Your task to perform on an android device: search for console tables on article.com Image 0: 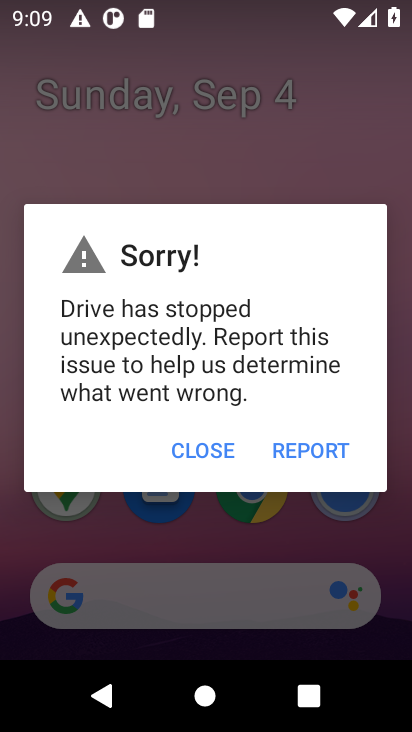
Step 0: click (210, 451)
Your task to perform on an android device: search for console tables on article.com Image 1: 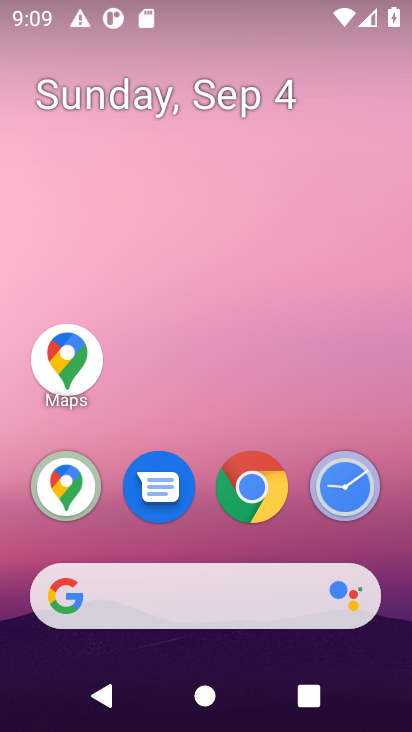
Step 1: click (252, 484)
Your task to perform on an android device: search for console tables on article.com Image 2: 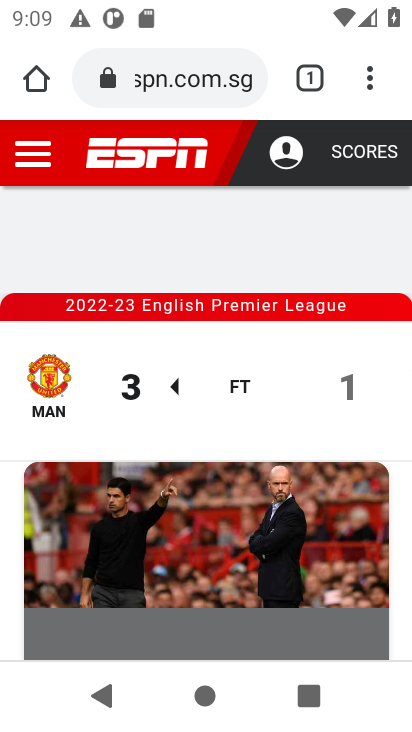
Step 2: click (42, 98)
Your task to perform on an android device: search for console tables on article.com Image 3: 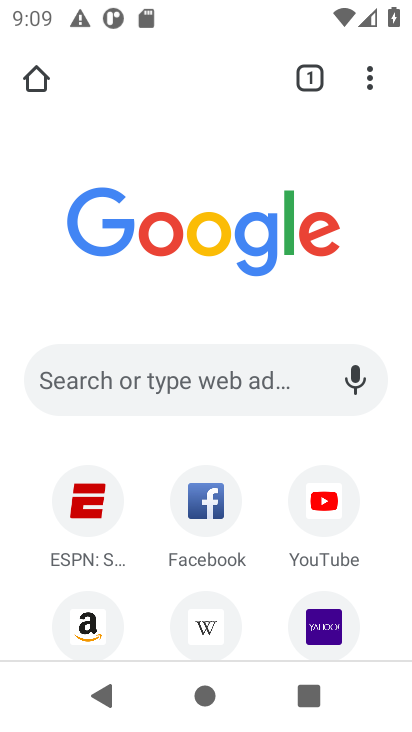
Step 3: click (42, 84)
Your task to perform on an android device: search for console tables on article.com Image 4: 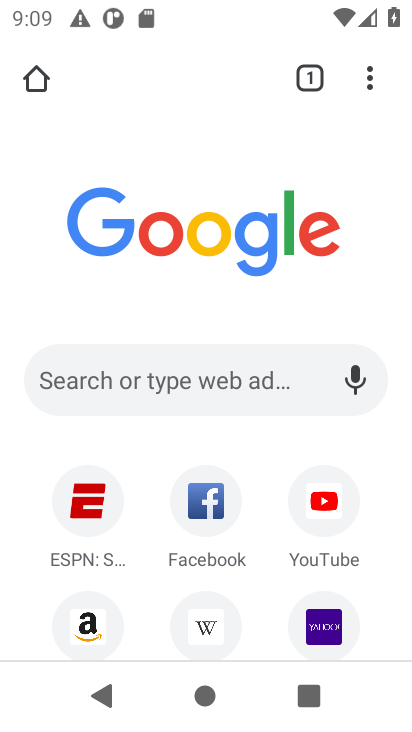
Step 4: click (215, 498)
Your task to perform on an android device: search for console tables on article.com Image 5: 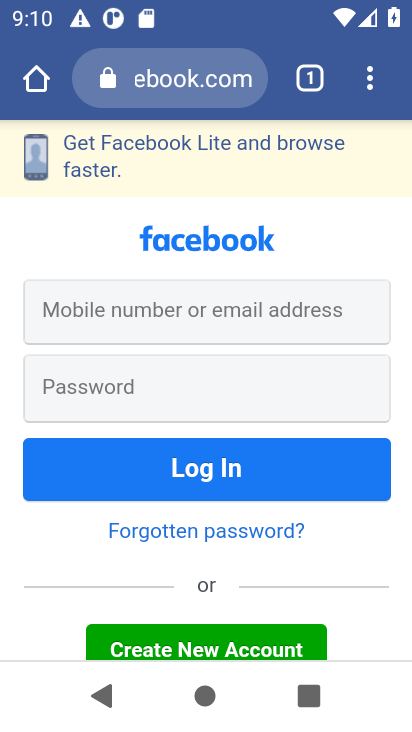
Step 5: task complete